Your task to perform on an android device: turn notification dots on Image 0: 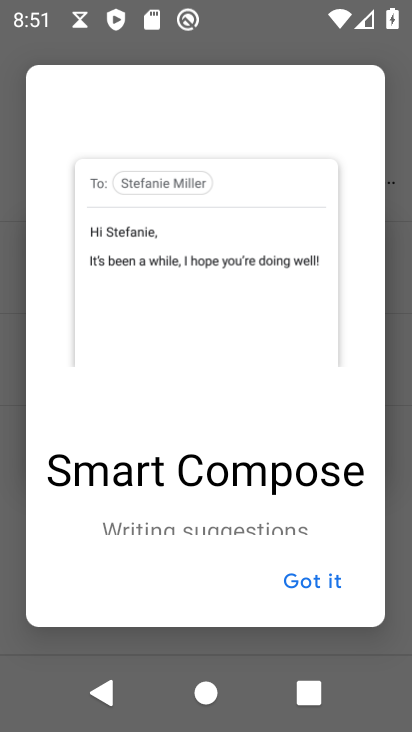
Step 0: press home button
Your task to perform on an android device: turn notification dots on Image 1: 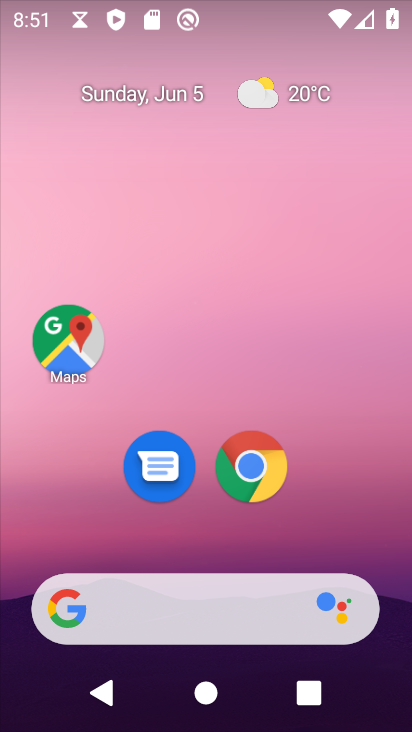
Step 1: drag from (215, 548) to (215, 70)
Your task to perform on an android device: turn notification dots on Image 2: 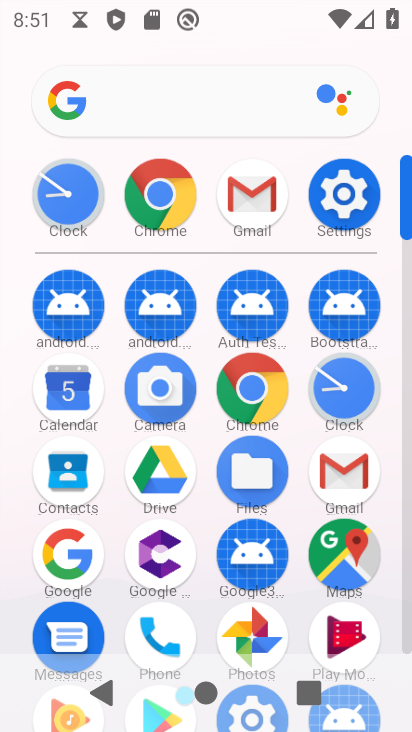
Step 2: click (334, 200)
Your task to perform on an android device: turn notification dots on Image 3: 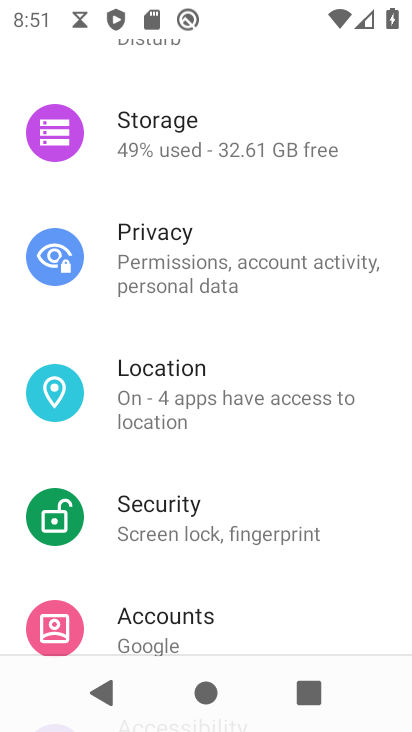
Step 3: drag from (199, 276) to (195, 571)
Your task to perform on an android device: turn notification dots on Image 4: 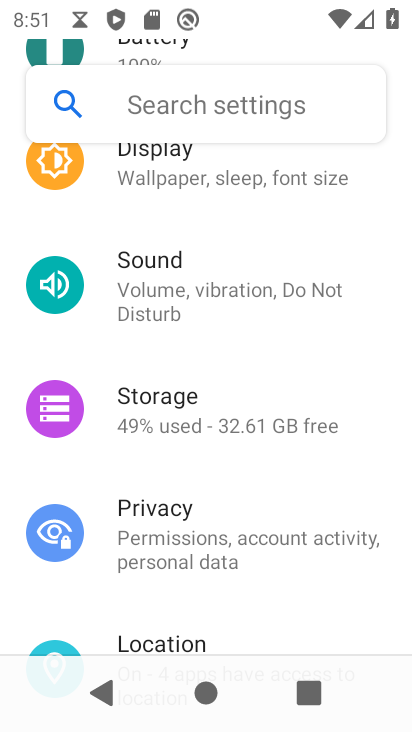
Step 4: drag from (228, 264) to (174, 596)
Your task to perform on an android device: turn notification dots on Image 5: 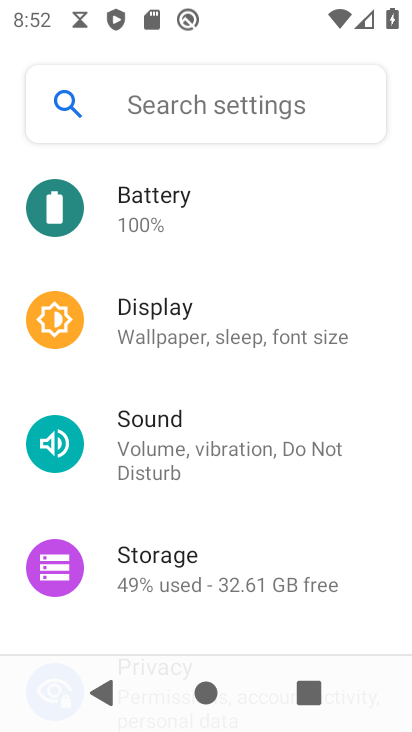
Step 5: drag from (212, 289) to (210, 532)
Your task to perform on an android device: turn notification dots on Image 6: 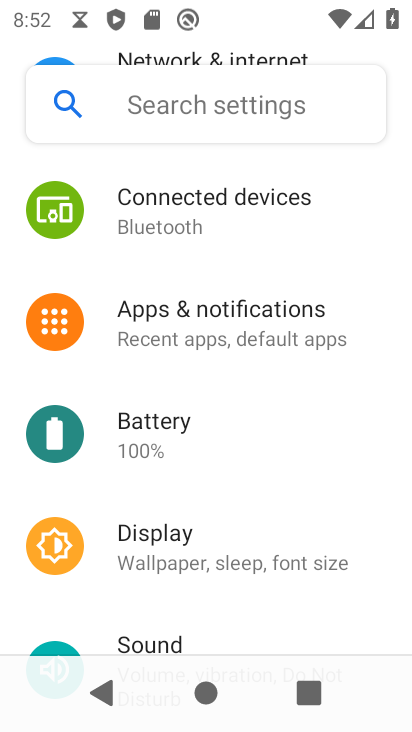
Step 6: click (180, 335)
Your task to perform on an android device: turn notification dots on Image 7: 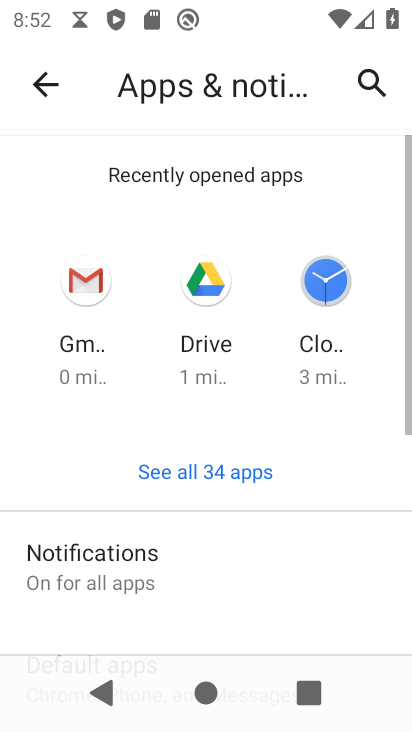
Step 7: click (142, 581)
Your task to perform on an android device: turn notification dots on Image 8: 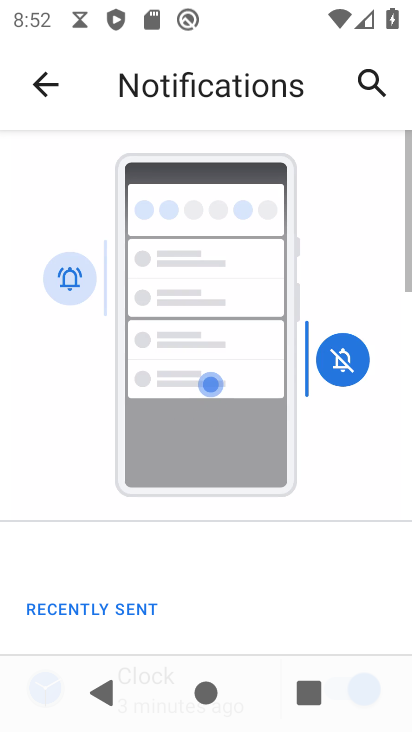
Step 8: drag from (142, 581) to (141, 295)
Your task to perform on an android device: turn notification dots on Image 9: 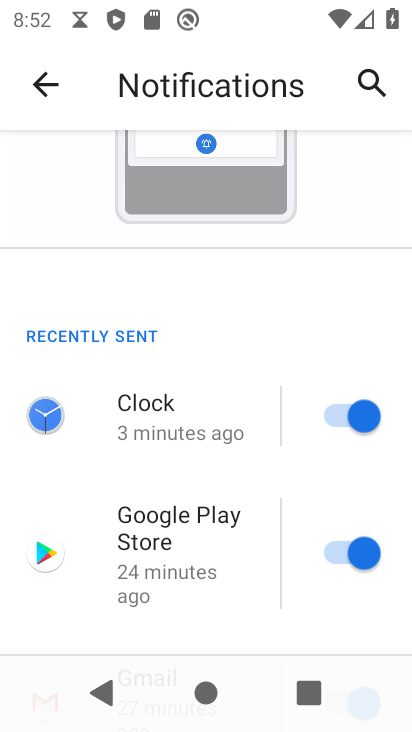
Step 9: drag from (186, 602) to (188, 296)
Your task to perform on an android device: turn notification dots on Image 10: 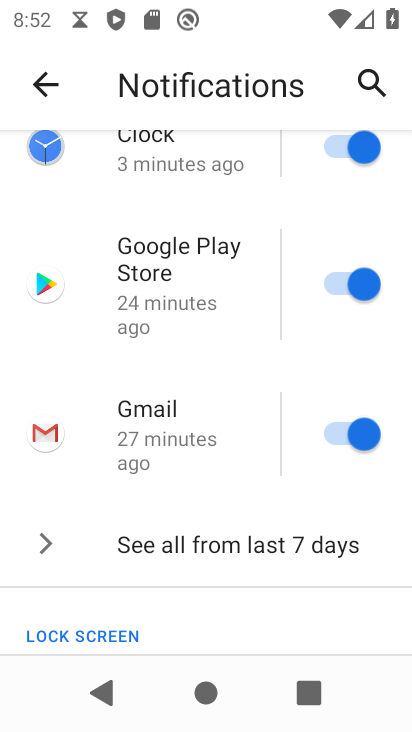
Step 10: drag from (192, 554) to (214, 245)
Your task to perform on an android device: turn notification dots on Image 11: 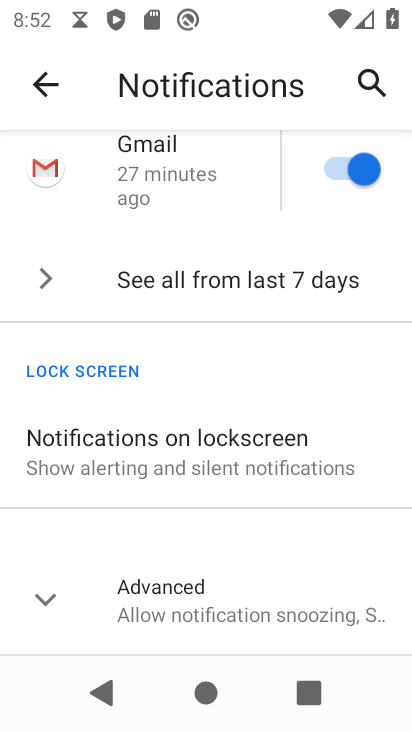
Step 11: click (139, 605)
Your task to perform on an android device: turn notification dots on Image 12: 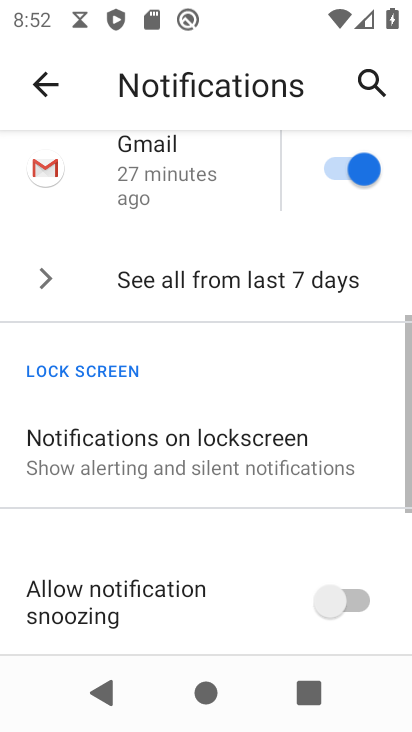
Step 12: task complete